Your task to perform on an android device: open app "Microsoft Excel" (install if not already installed) and enter user name: "kidnappers@icloud.com" and password: "Bessemerizes" Image 0: 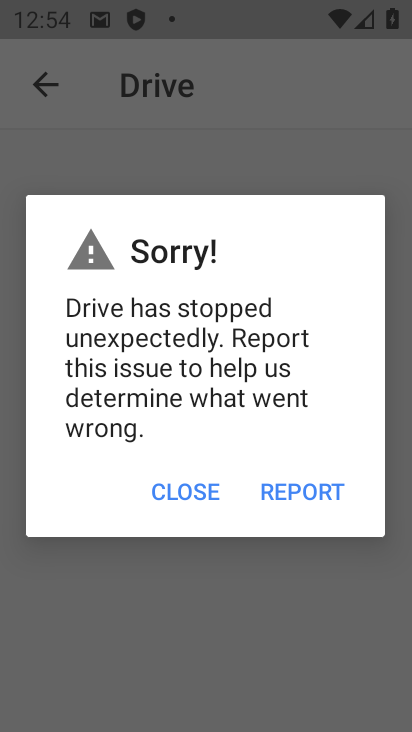
Step 0: click (170, 511)
Your task to perform on an android device: open app "Microsoft Excel" (install if not already installed) and enter user name: "kidnappers@icloud.com" and password: "Bessemerizes" Image 1: 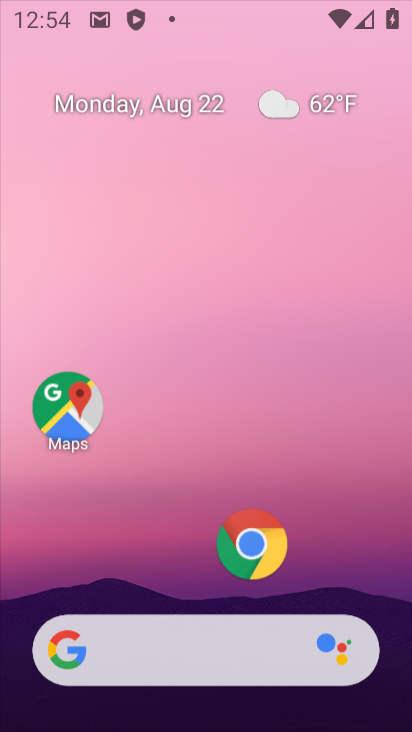
Step 1: press home button
Your task to perform on an android device: open app "Microsoft Excel" (install if not already installed) and enter user name: "kidnappers@icloud.com" and password: "Bessemerizes" Image 2: 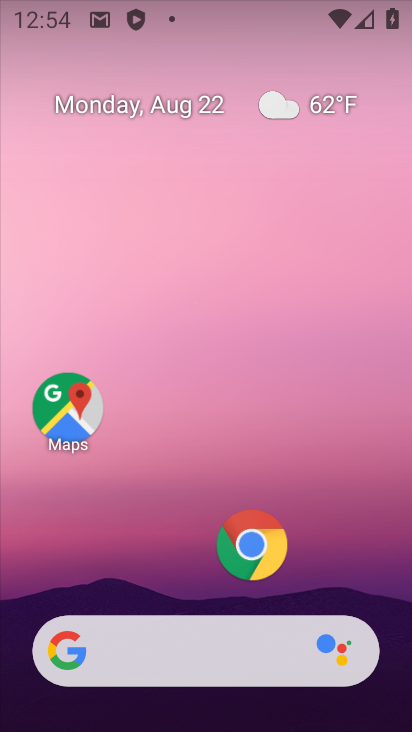
Step 2: drag from (119, 510) to (246, 38)
Your task to perform on an android device: open app "Microsoft Excel" (install if not already installed) and enter user name: "kidnappers@icloud.com" and password: "Bessemerizes" Image 3: 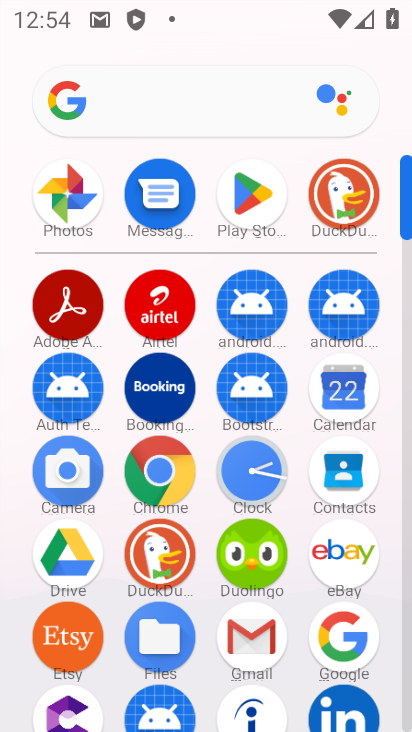
Step 3: click (247, 188)
Your task to perform on an android device: open app "Microsoft Excel" (install if not already installed) and enter user name: "kidnappers@icloud.com" and password: "Bessemerizes" Image 4: 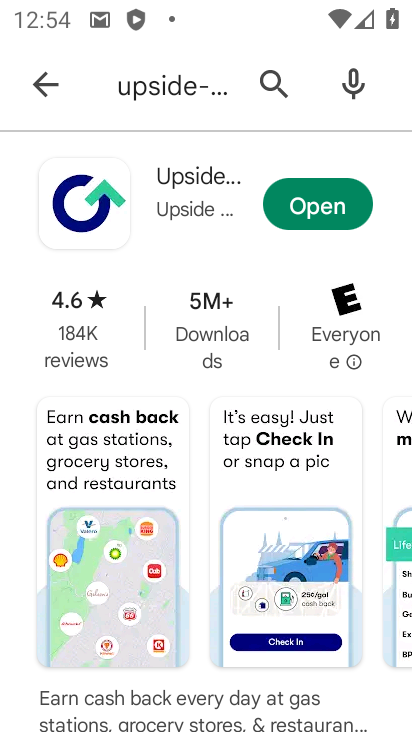
Step 4: click (260, 96)
Your task to perform on an android device: open app "Microsoft Excel" (install if not already installed) and enter user name: "kidnappers@icloud.com" and password: "Bessemerizes" Image 5: 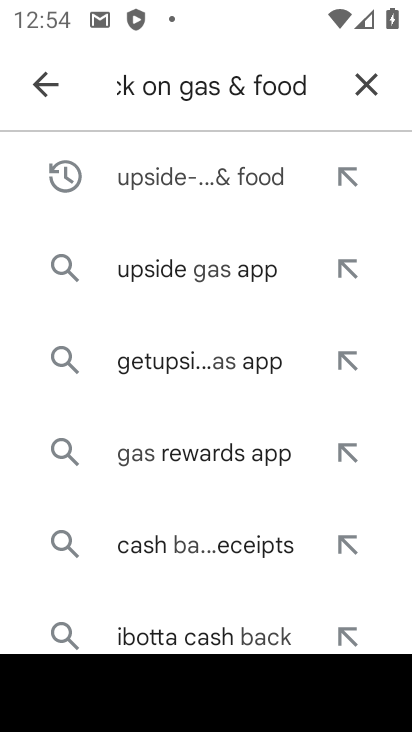
Step 5: click (365, 91)
Your task to perform on an android device: open app "Microsoft Excel" (install if not already installed) and enter user name: "kidnappers@icloud.com" and password: "Bessemerizes" Image 6: 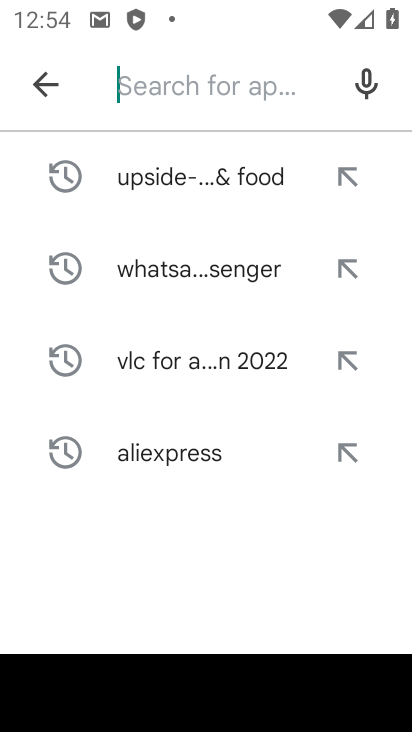
Step 6: click (127, 96)
Your task to perform on an android device: open app "Microsoft Excel" (install if not already installed) and enter user name: "kidnappers@icloud.com" and password: "Bessemerizes" Image 7: 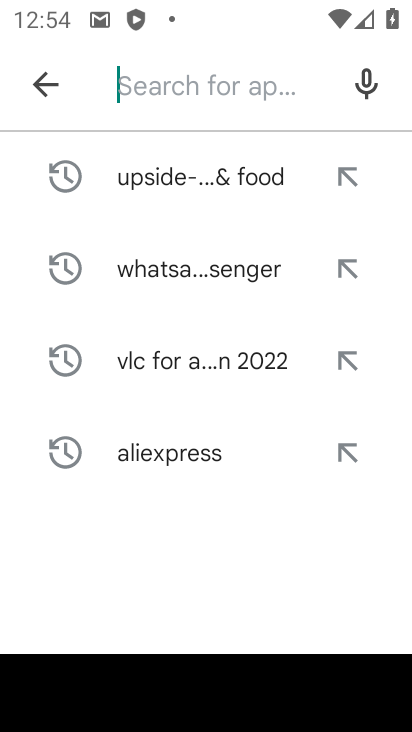
Step 7: click (130, 92)
Your task to perform on an android device: open app "Microsoft Excel" (install if not already installed) and enter user name: "kidnappers@icloud.com" and password: "Bessemerizes" Image 8: 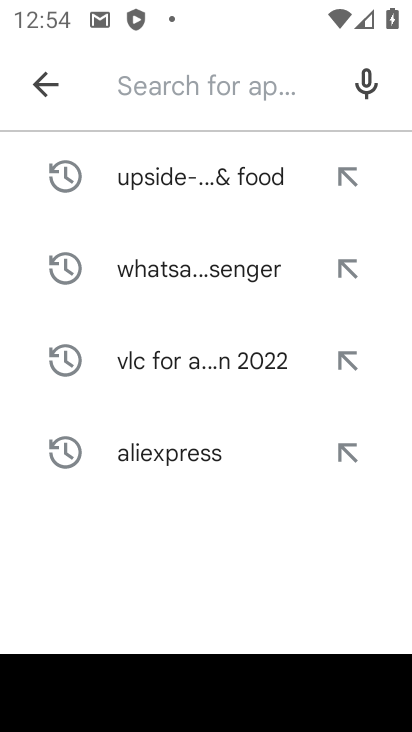
Step 8: type "Microsoft Excel"
Your task to perform on an android device: open app "Microsoft Excel" (install if not already installed) and enter user name: "kidnappers@icloud.com" and password: "Bessemerizes" Image 9: 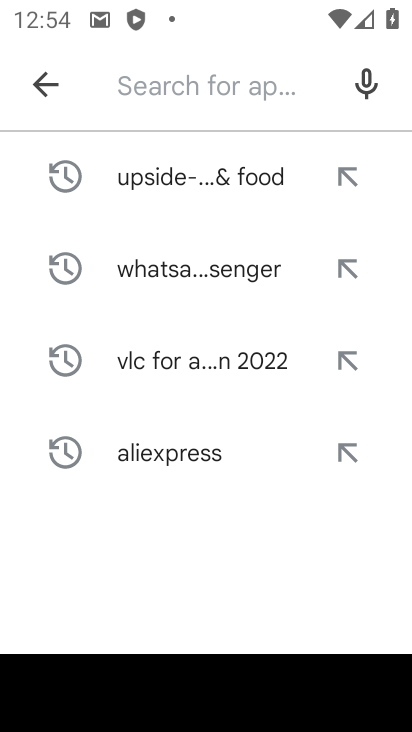
Step 9: click (208, 586)
Your task to perform on an android device: open app "Microsoft Excel" (install if not already installed) and enter user name: "kidnappers@icloud.com" and password: "Bessemerizes" Image 10: 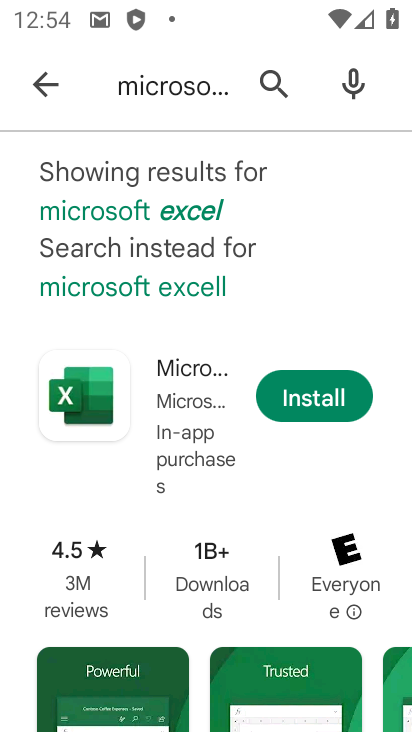
Step 10: click (300, 402)
Your task to perform on an android device: open app "Microsoft Excel" (install if not already installed) and enter user name: "kidnappers@icloud.com" and password: "Bessemerizes" Image 11: 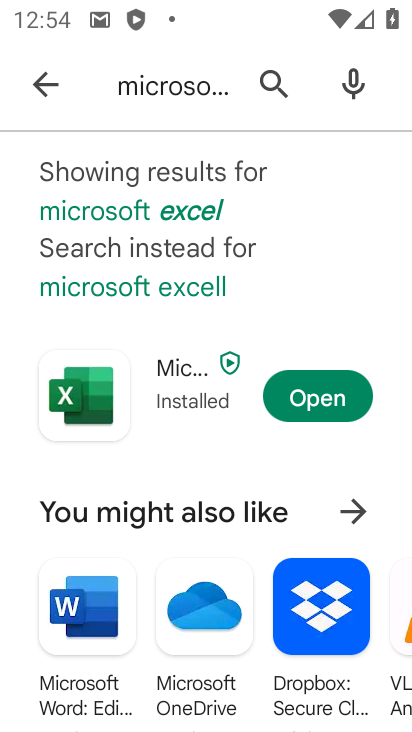
Step 11: click (330, 388)
Your task to perform on an android device: open app "Microsoft Excel" (install if not already installed) and enter user name: "kidnappers@icloud.com" and password: "Bessemerizes" Image 12: 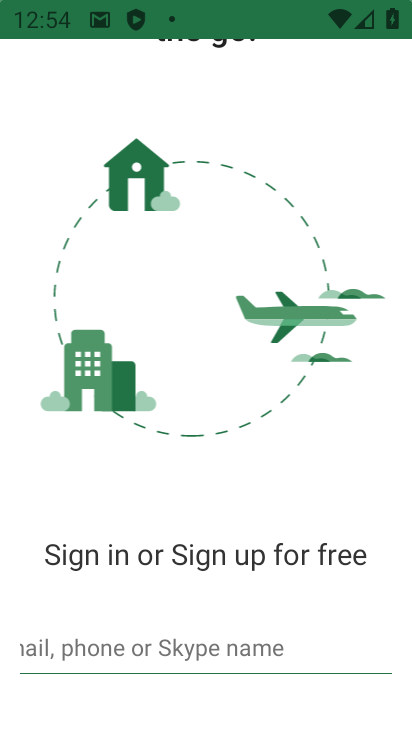
Step 12: click (75, 655)
Your task to perform on an android device: open app "Microsoft Excel" (install if not already installed) and enter user name: "kidnappers@icloud.com" and password: "Bessemerizes" Image 13: 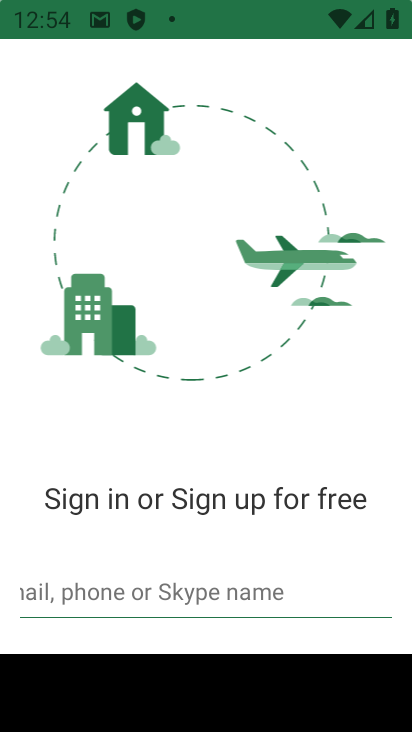
Step 13: type "kidnappers@icloud.com"
Your task to perform on an android device: open app "Microsoft Excel" (install if not already installed) and enter user name: "kidnappers@icloud.com" and password: "Bessemerizes" Image 14: 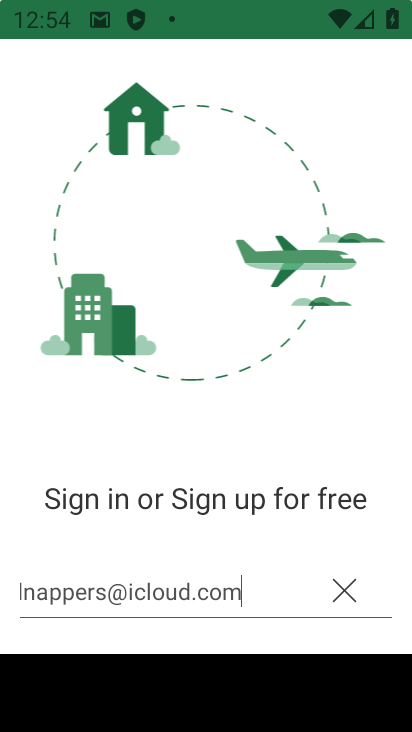
Step 14: drag from (164, 507) to (258, 88)
Your task to perform on an android device: open app "Microsoft Excel" (install if not already installed) and enter user name: "kidnappers@icloud.com" and password: "Bessemerizes" Image 15: 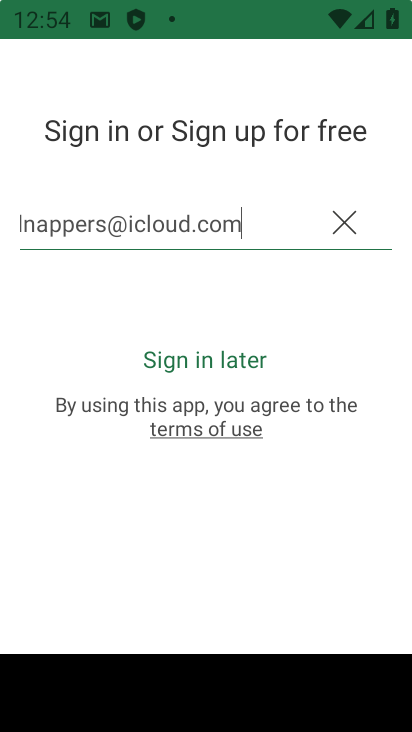
Step 15: drag from (224, 590) to (286, 155)
Your task to perform on an android device: open app "Microsoft Excel" (install if not already installed) and enter user name: "kidnappers@icloud.com" and password: "Bessemerizes" Image 16: 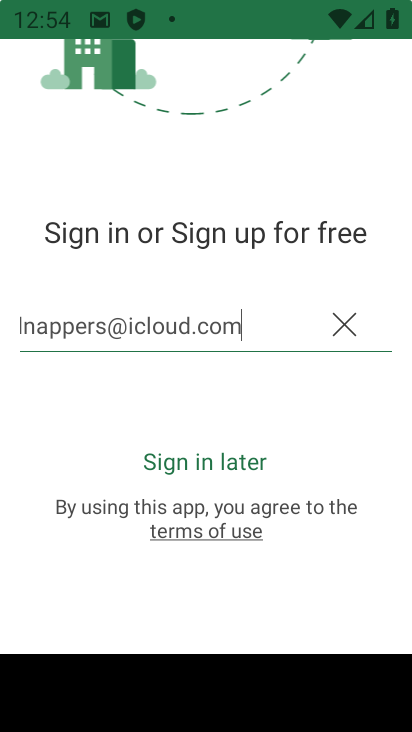
Step 16: click (255, 465)
Your task to perform on an android device: open app "Microsoft Excel" (install if not already installed) and enter user name: "kidnappers@icloud.com" and password: "Bessemerizes" Image 17: 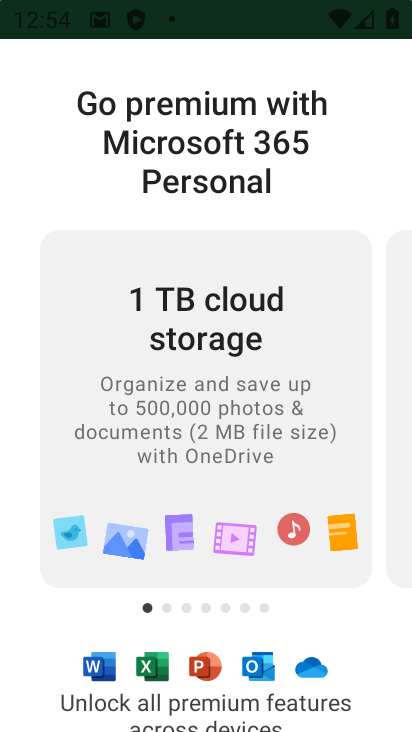
Step 17: task complete